Your task to perform on an android device: Open calendar and show me the first week of next month Image 0: 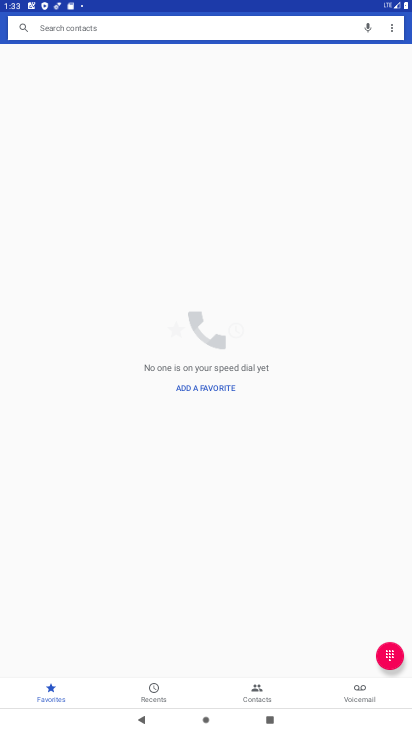
Step 0: press home button
Your task to perform on an android device: Open calendar and show me the first week of next month Image 1: 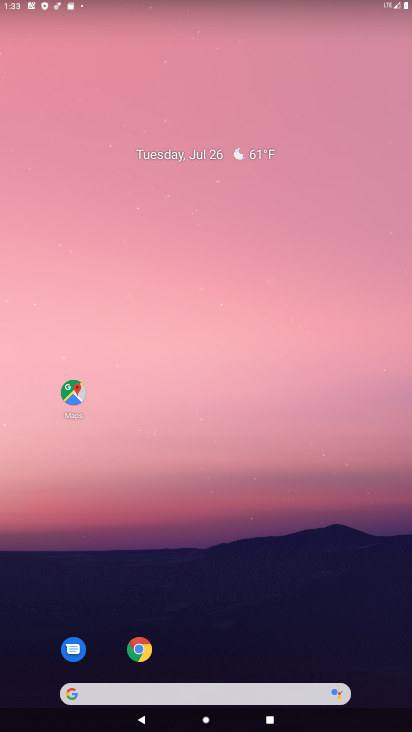
Step 1: drag from (234, 326) to (211, 46)
Your task to perform on an android device: Open calendar and show me the first week of next month Image 2: 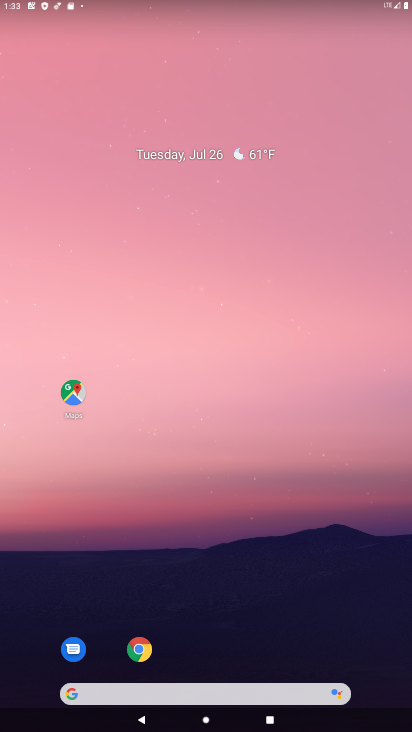
Step 2: click (225, 77)
Your task to perform on an android device: Open calendar and show me the first week of next month Image 3: 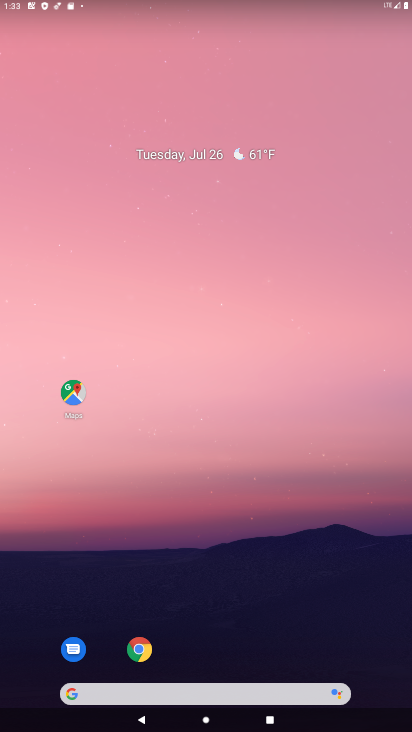
Step 3: drag from (187, 626) to (193, 34)
Your task to perform on an android device: Open calendar and show me the first week of next month Image 4: 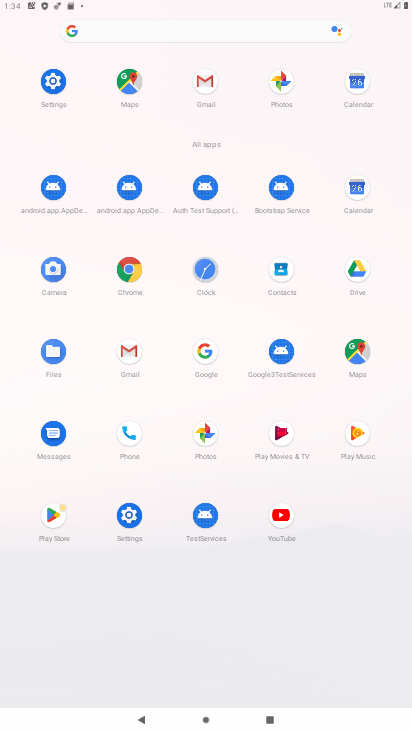
Step 4: click (355, 84)
Your task to perform on an android device: Open calendar and show me the first week of next month Image 5: 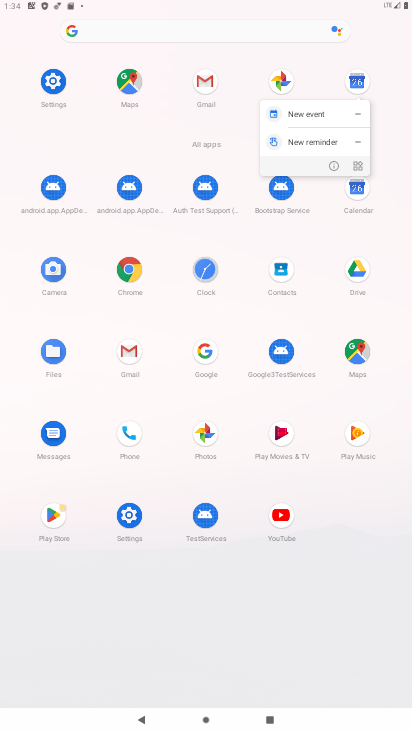
Step 5: click (354, 84)
Your task to perform on an android device: Open calendar and show me the first week of next month Image 6: 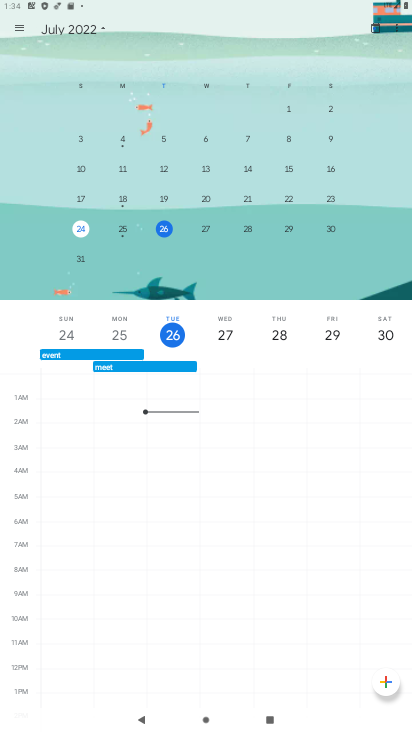
Step 6: click (58, 30)
Your task to perform on an android device: Open calendar and show me the first week of next month Image 7: 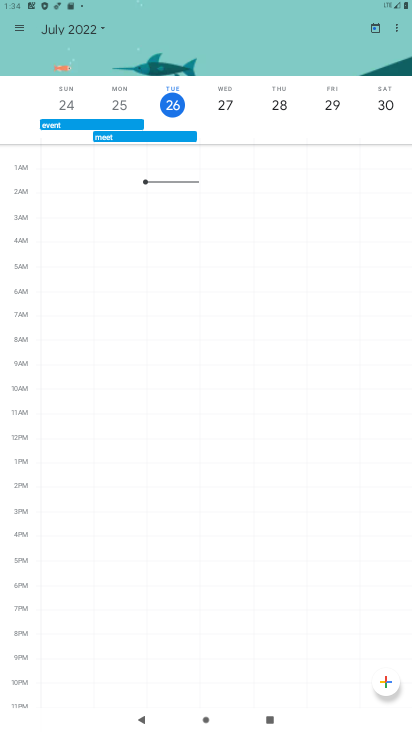
Step 7: click (58, 30)
Your task to perform on an android device: Open calendar and show me the first week of next month Image 8: 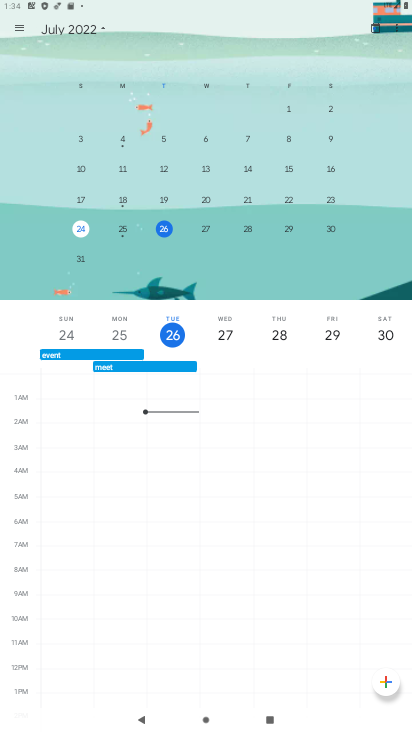
Step 8: click (15, 28)
Your task to perform on an android device: Open calendar and show me the first week of next month Image 9: 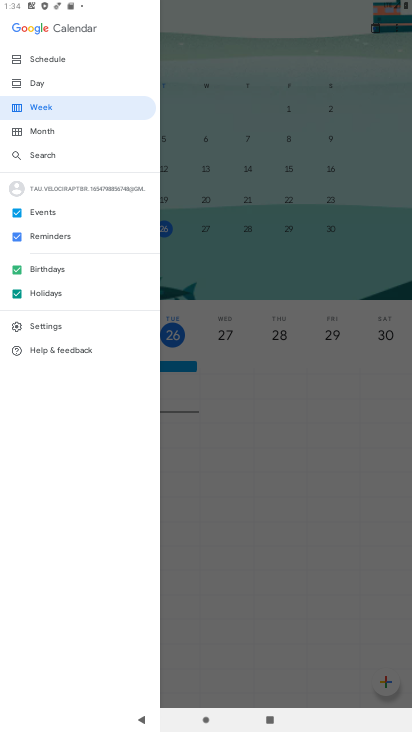
Step 9: click (47, 103)
Your task to perform on an android device: Open calendar and show me the first week of next month Image 10: 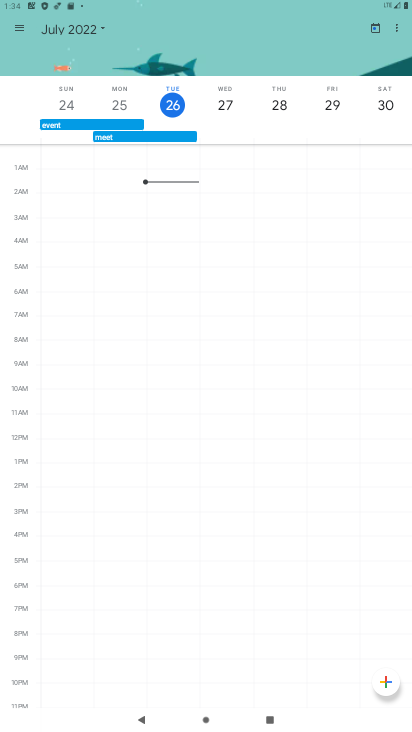
Step 10: click (69, 36)
Your task to perform on an android device: Open calendar and show me the first week of next month Image 11: 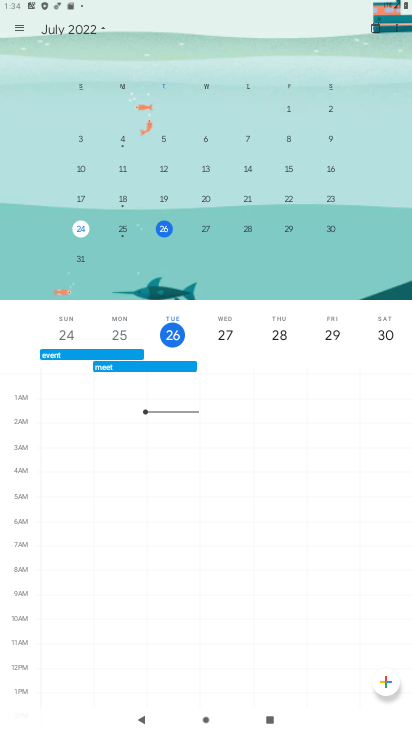
Step 11: drag from (312, 139) to (81, 134)
Your task to perform on an android device: Open calendar and show me the first week of next month Image 12: 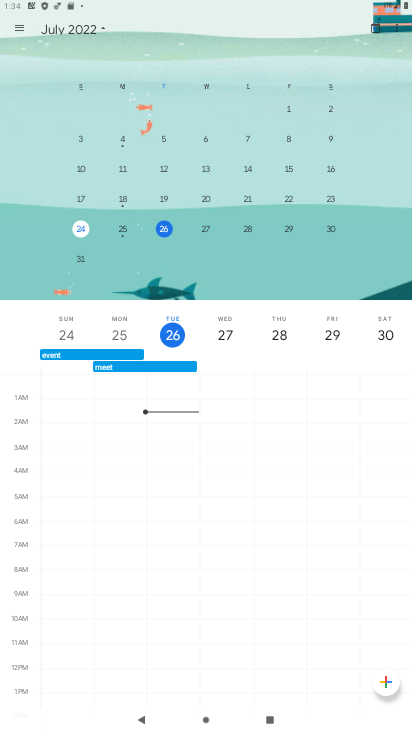
Step 12: drag from (322, 171) to (9, 133)
Your task to perform on an android device: Open calendar and show me the first week of next month Image 13: 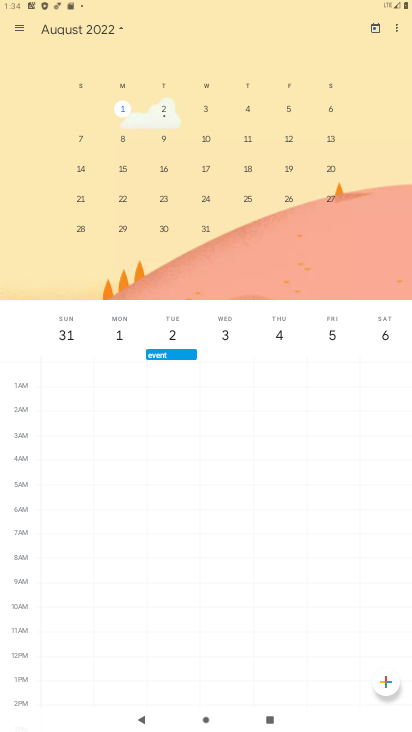
Step 13: click (121, 106)
Your task to perform on an android device: Open calendar and show me the first week of next month Image 14: 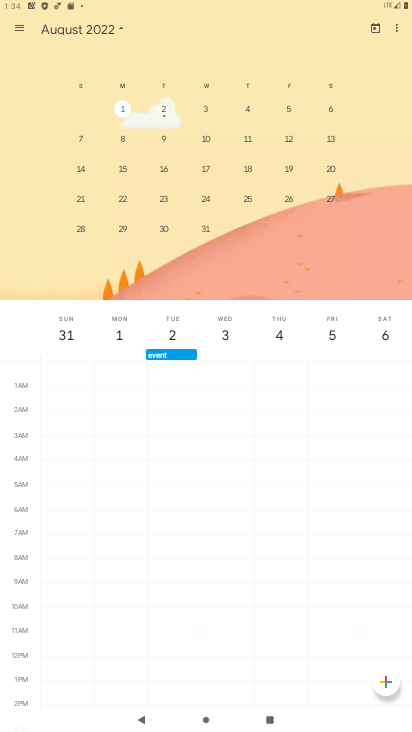
Step 14: task complete